Your task to perform on an android device: Open settings Image 0: 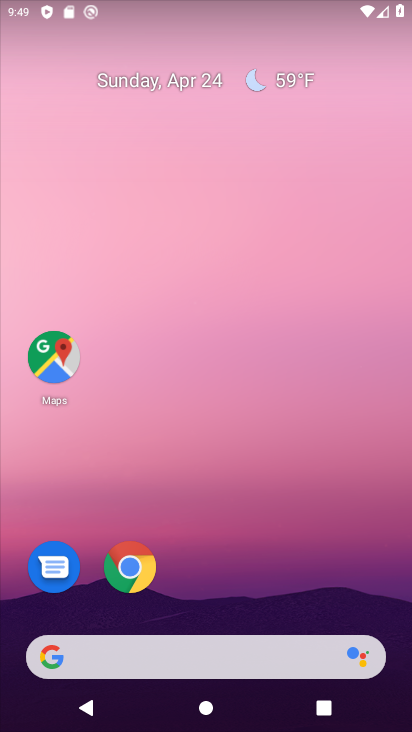
Step 0: drag from (355, 202) to (338, 140)
Your task to perform on an android device: Open settings Image 1: 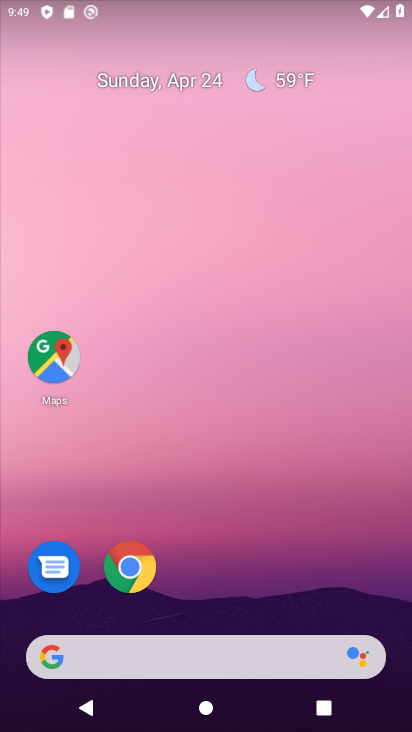
Step 1: drag from (341, 246) to (303, 9)
Your task to perform on an android device: Open settings Image 2: 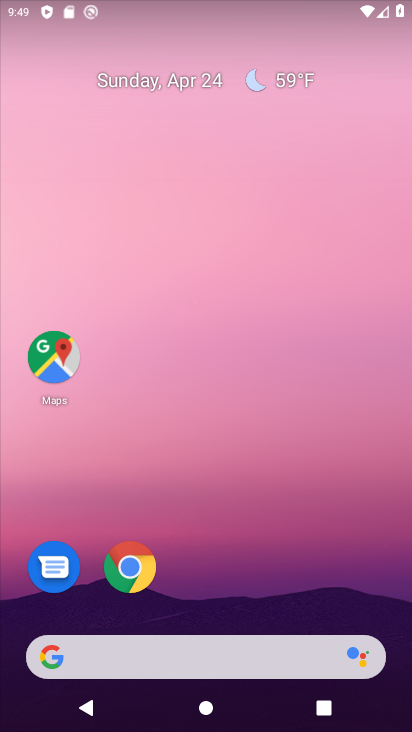
Step 2: click (378, 56)
Your task to perform on an android device: Open settings Image 3: 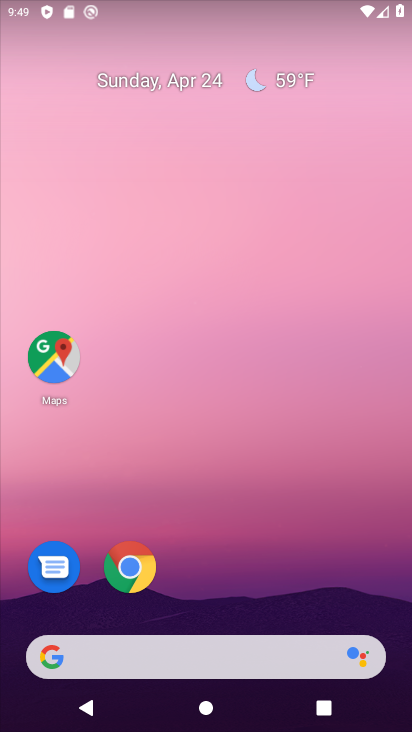
Step 3: drag from (367, 314) to (338, 76)
Your task to perform on an android device: Open settings Image 4: 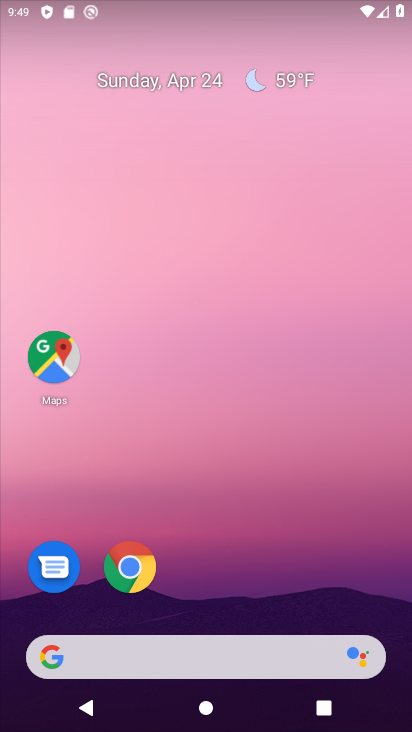
Step 4: drag from (390, 627) to (379, 58)
Your task to perform on an android device: Open settings Image 5: 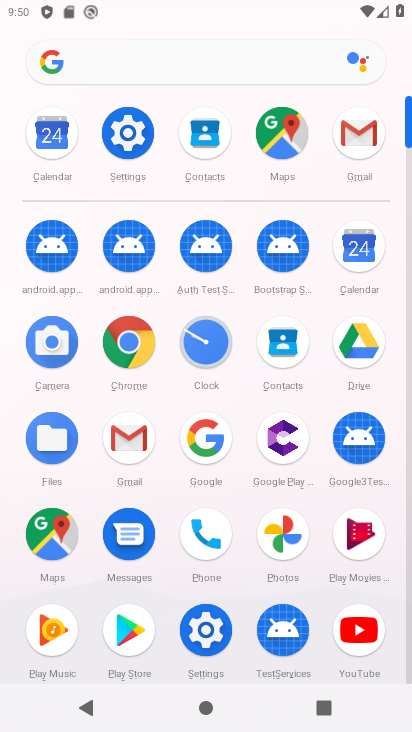
Step 5: click (126, 145)
Your task to perform on an android device: Open settings Image 6: 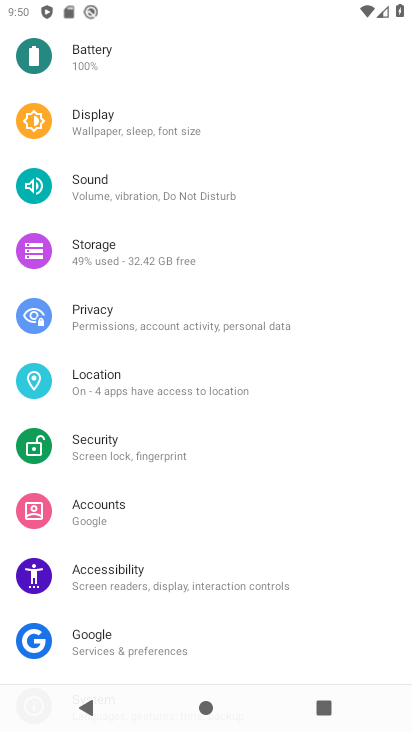
Step 6: task complete